Your task to perform on an android device: Go to internet settings Image 0: 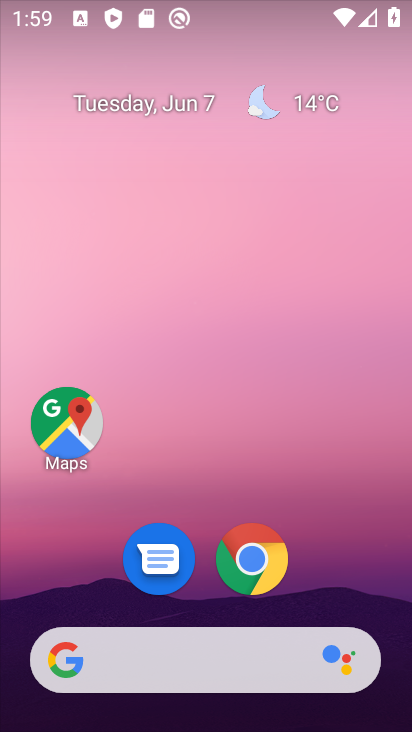
Step 0: drag from (55, 499) to (243, 64)
Your task to perform on an android device: Go to internet settings Image 1: 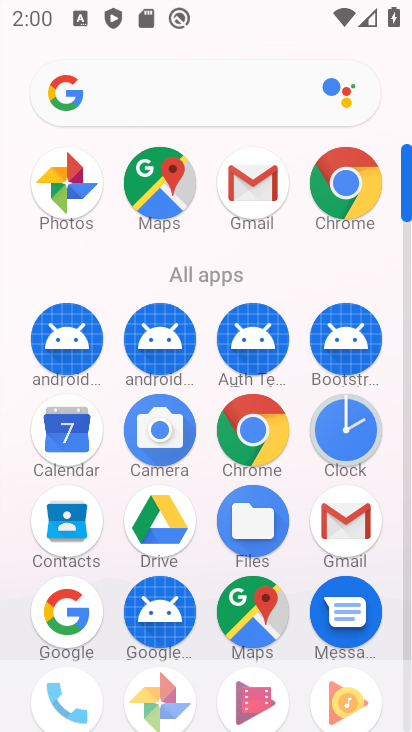
Step 1: drag from (37, 551) to (262, 185)
Your task to perform on an android device: Go to internet settings Image 2: 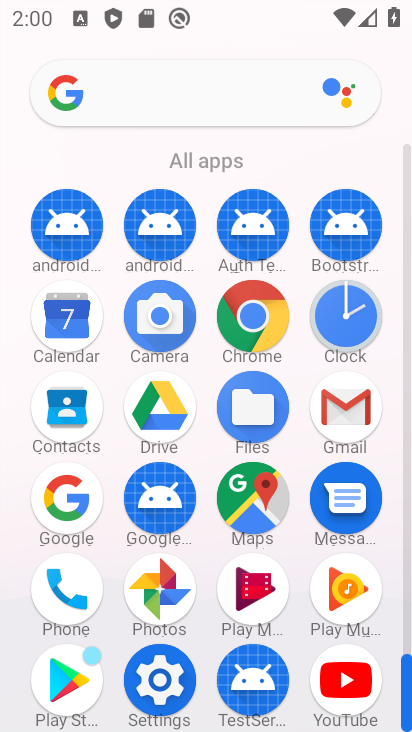
Step 2: click (169, 675)
Your task to perform on an android device: Go to internet settings Image 3: 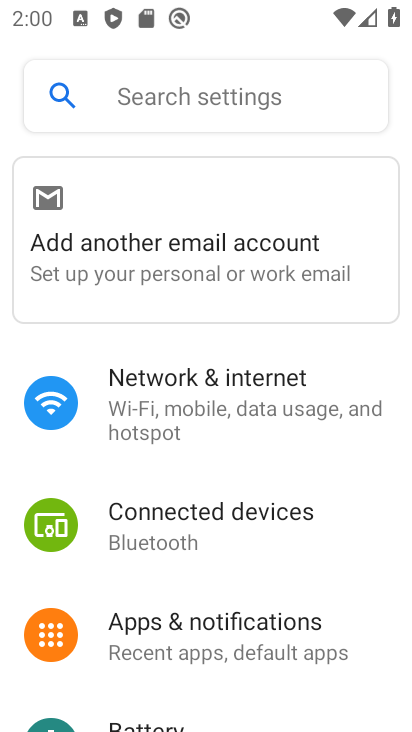
Step 3: click (191, 393)
Your task to perform on an android device: Go to internet settings Image 4: 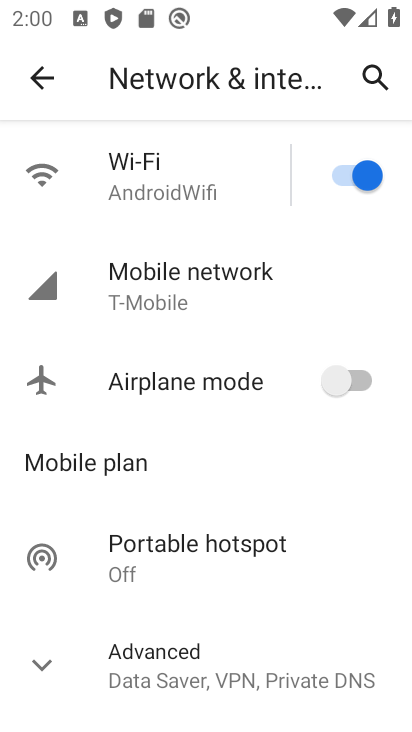
Step 4: click (216, 257)
Your task to perform on an android device: Go to internet settings Image 5: 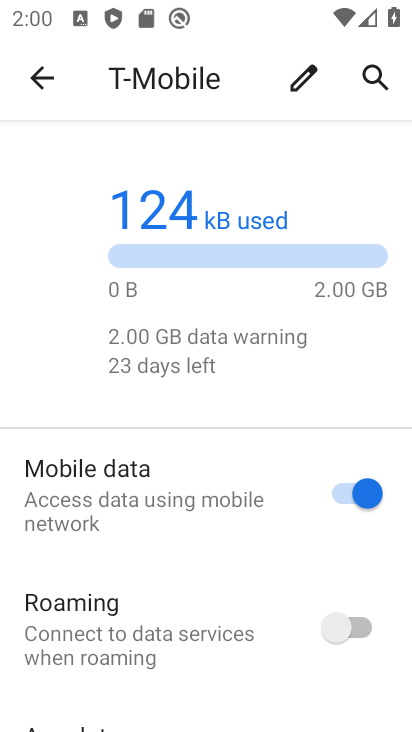
Step 5: task complete